Your task to perform on an android device: change text size in settings app Image 0: 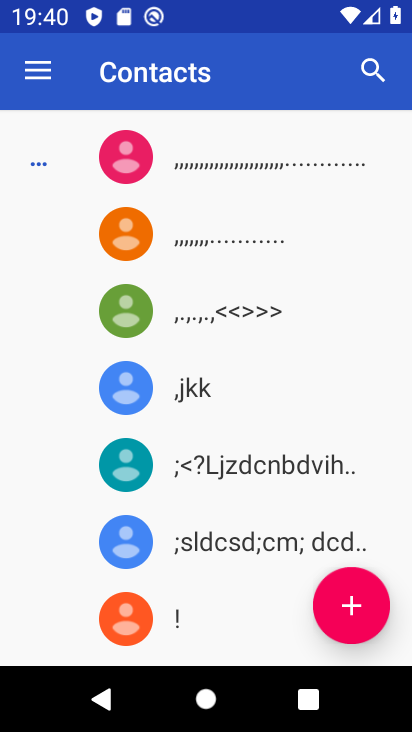
Step 0: press home button
Your task to perform on an android device: change text size in settings app Image 1: 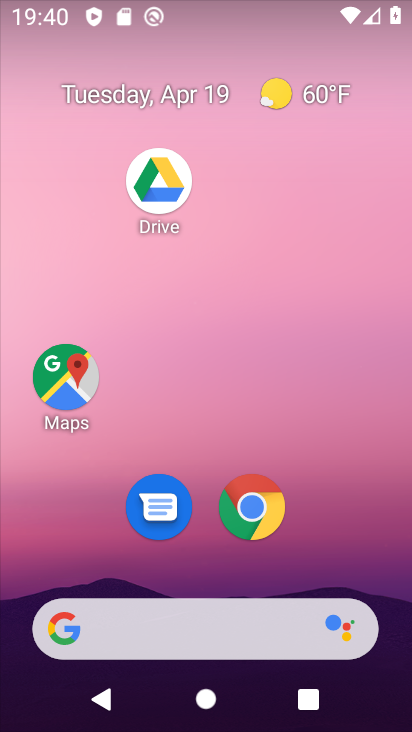
Step 1: drag from (347, 508) to (357, 137)
Your task to perform on an android device: change text size in settings app Image 2: 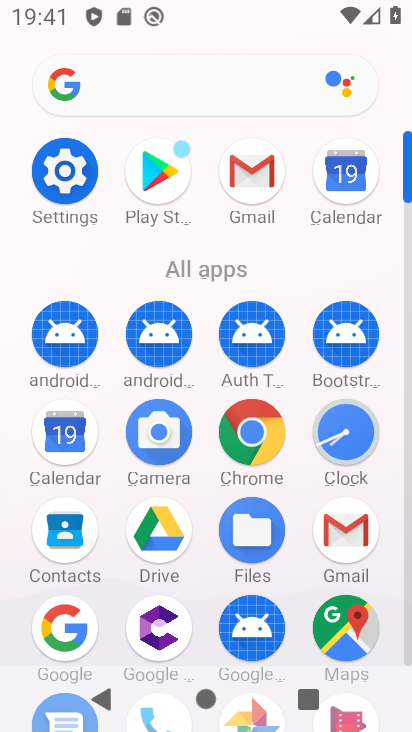
Step 2: click (80, 170)
Your task to perform on an android device: change text size in settings app Image 3: 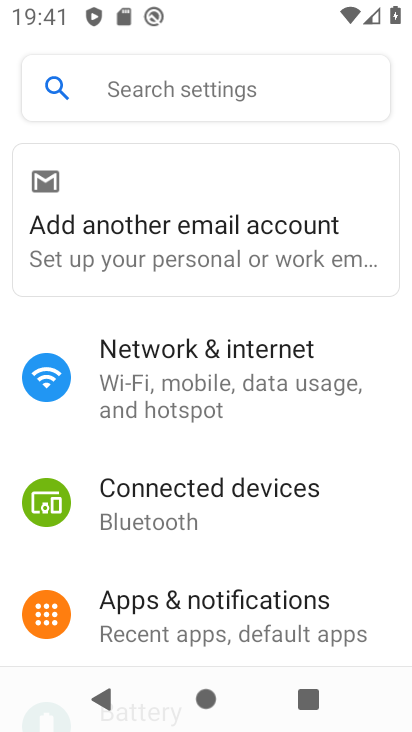
Step 3: drag from (266, 546) to (259, 206)
Your task to perform on an android device: change text size in settings app Image 4: 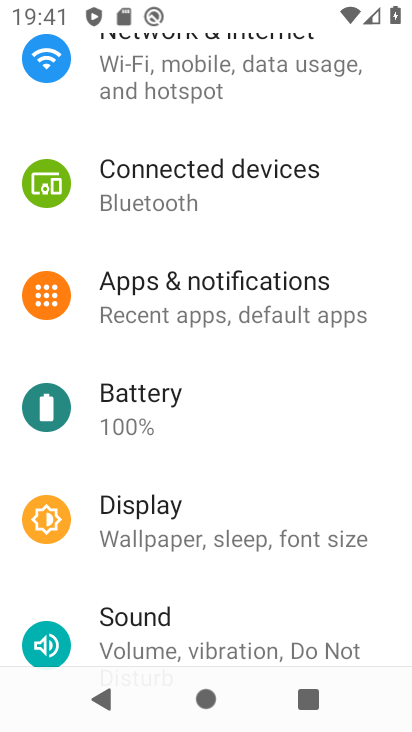
Step 4: click (220, 536)
Your task to perform on an android device: change text size in settings app Image 5: 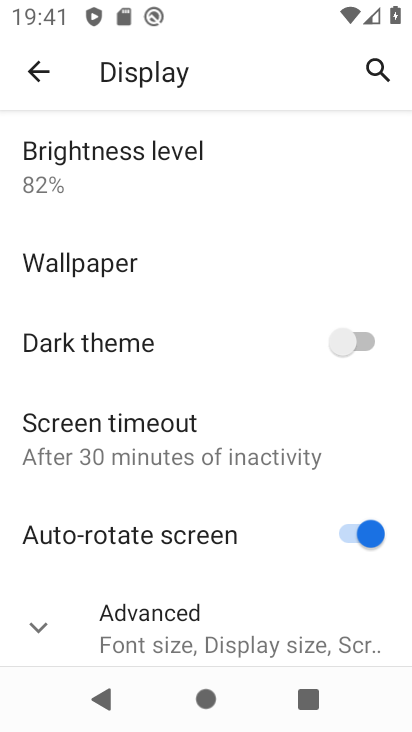
Step 5: click (39, 622)
Your task to perform on an android device: change text size in settings app Image 6: 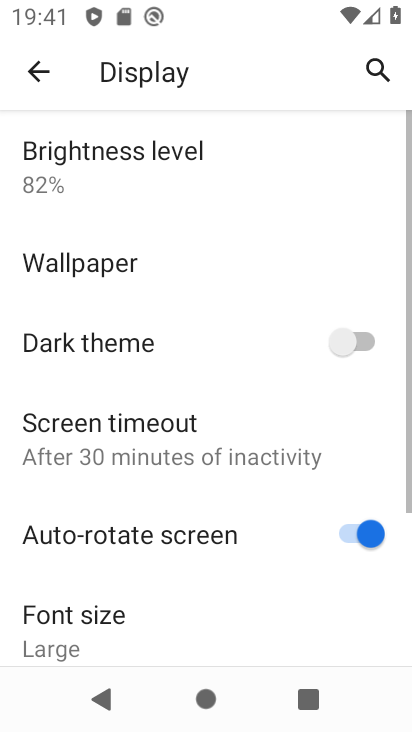
Step 6: drag from (206, 477) to (252, 170)
Your task to perform on an android device: change text size in settings app Image 7: 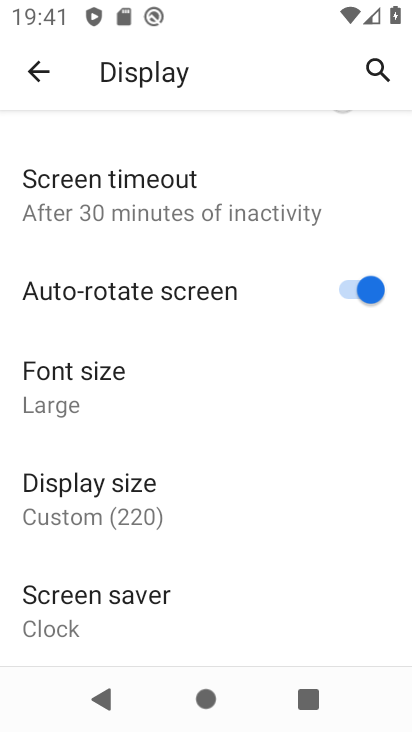
Step 7: click (179, 391)
Your task to perform on an android device: change text size in settings app Image 8: 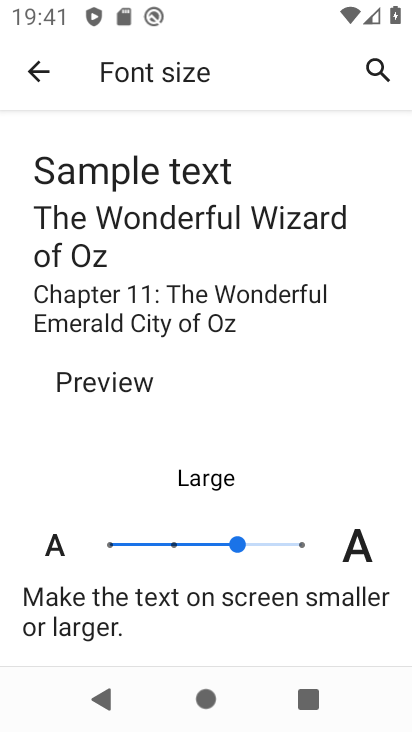
Step 8: click (173, 540)
Your task to perform on an android device: change text size in settings app Image 9: 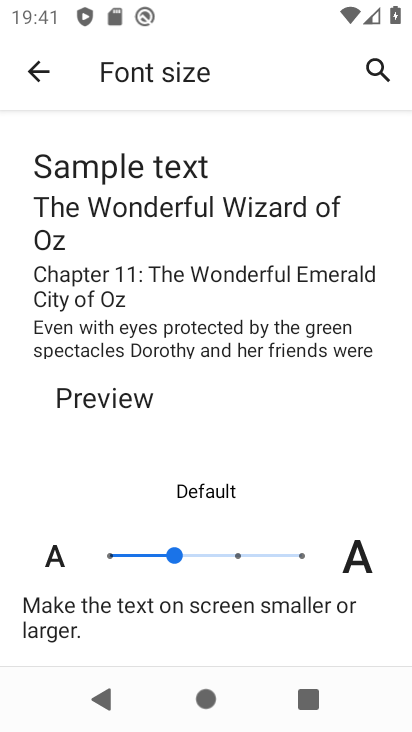
Step 9: task complete